Your task to perform on an android device: add a label to a message in the gmail app Image 0: 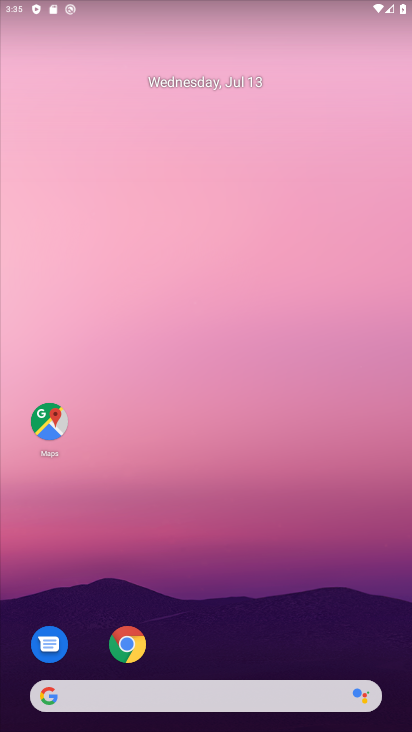
Step 0: drag from (245, 638) to (338, 6)
Your task to perform on an android device: add a label to a message in the gmail app Image 1: 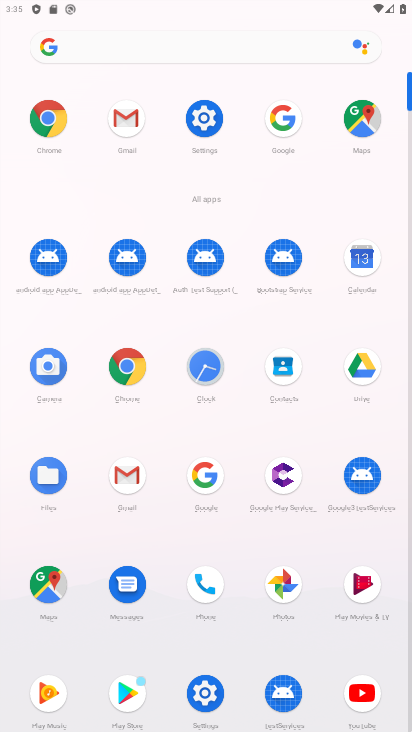
Step 1: click (119, 105)
Your task to perform on an android device: add a label to a message in the gmail app Image 2: 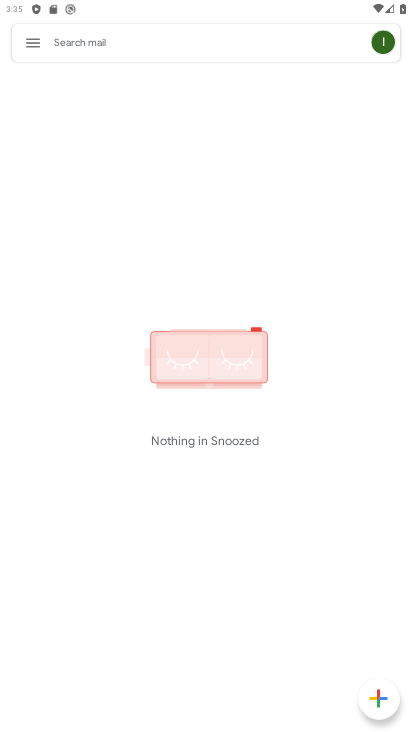
Step 2: click (27, 34)
Your task to perform on an android device: add a label to a message in the gmail app Image 3: 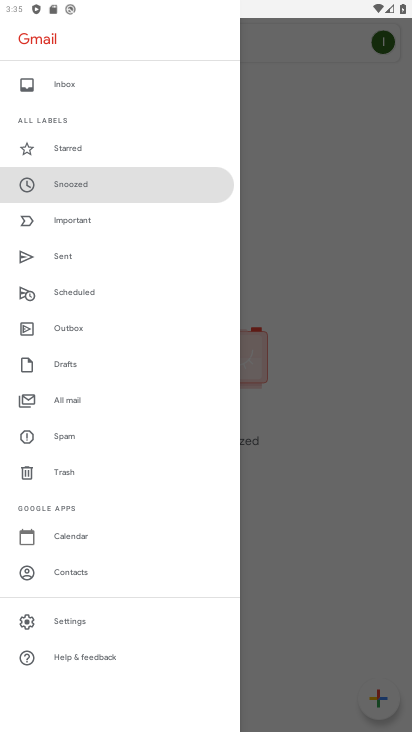
Step 3: click (68, 398)
Your task to perform on an android device: add a label to a message in the gmail app Image 4: 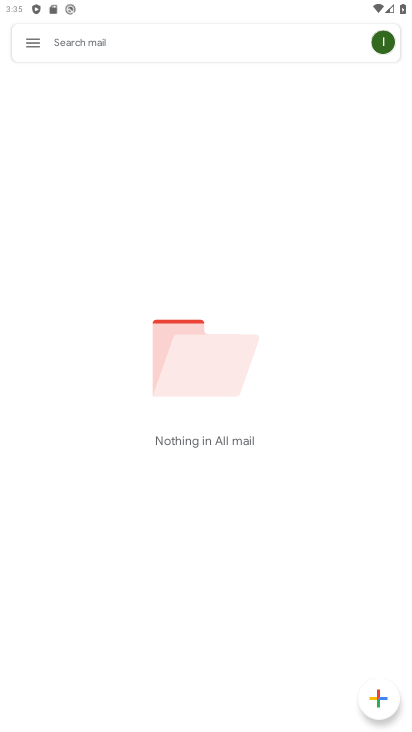
Step 4: task complete